Your task to perform on an android device: turn on javascript in the chrome app Image 0: 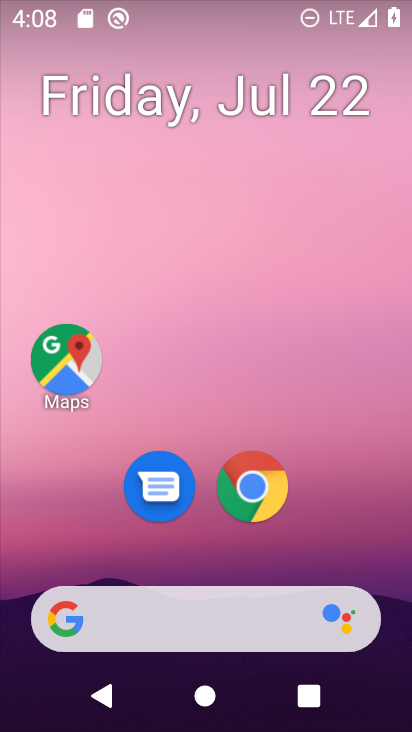
Step 0: click (247, 478)
Your task to perform on an android device: turn on javascript in the chrome app Image 1: 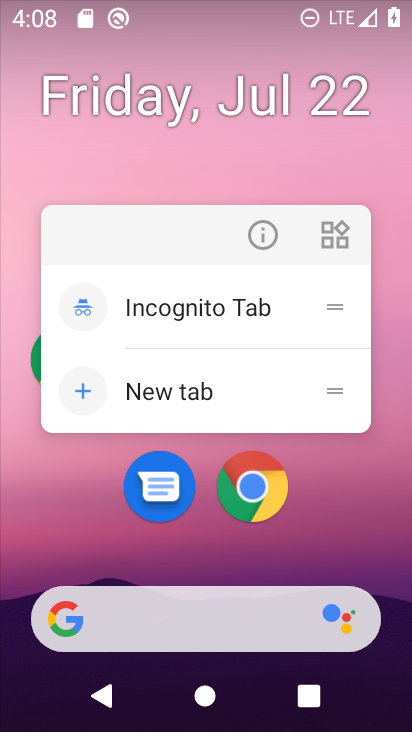
Step 1: click (249, 473)
Your task to perform on an android device: turn on javascript in the chrome app Image 2: 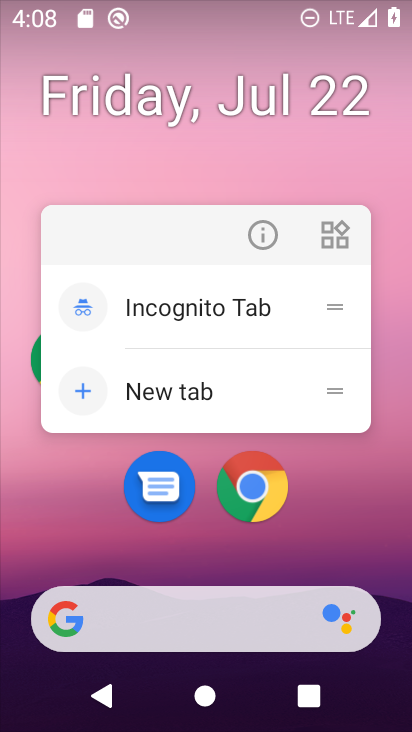
Step 2: click (257, 482)
Your task to perform on an android device: turn on javascript in the chrome app Image 3: 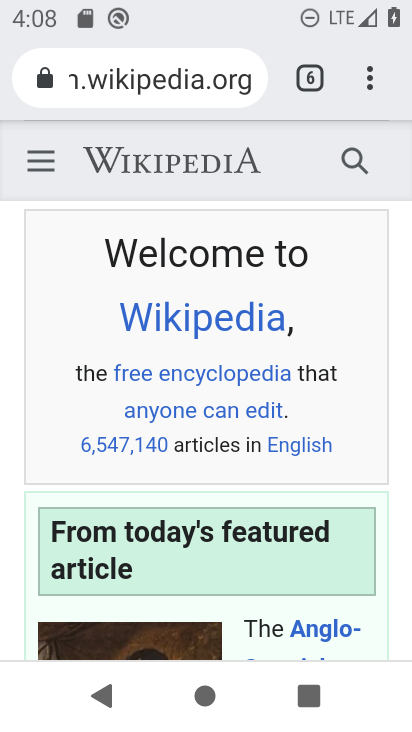
Step 3: drag from (380, 68) to (116, 559)
Your task to perform on an android device: turn on javascript in the chrome app Image 4: 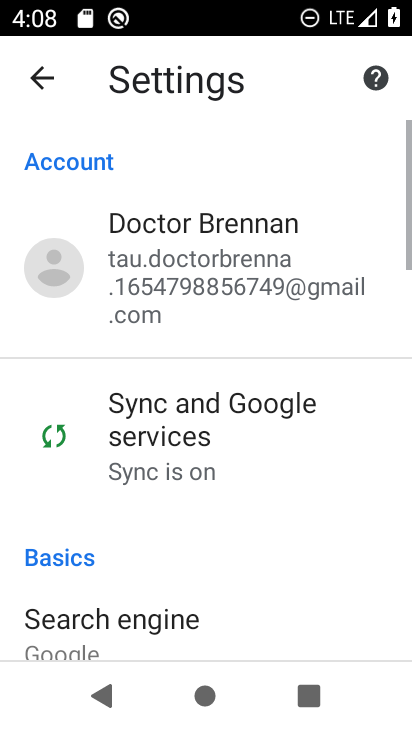
Step 4: drag from (106, 548) to (258, 16)
Your task to perform on an android device: turn on javascript in the chrome app Image 5: 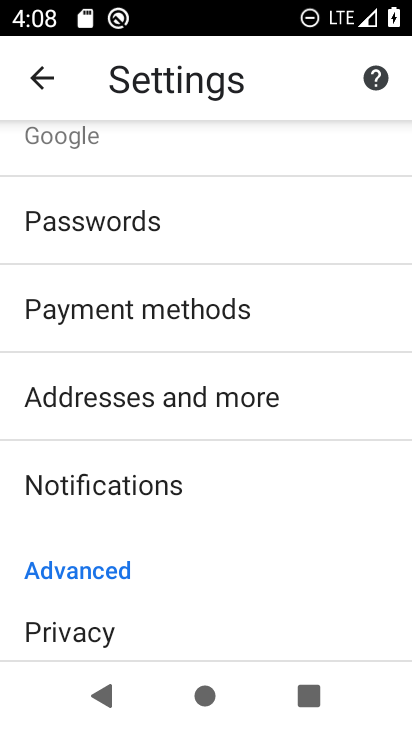
Step 5: drag from (125, 551) to (243, 85)
Your task to perform on an android device: turn on javascript in the chrome app Image 6: 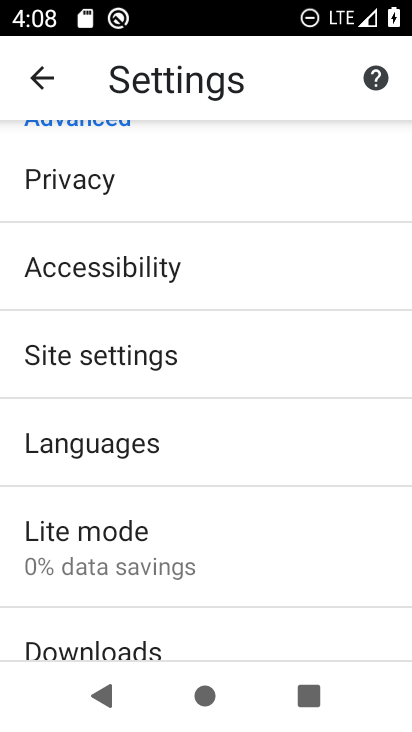
Step 6: click (83, 367)
Your task to perform on an android device: turn on javascript in the chrome app Image 7: 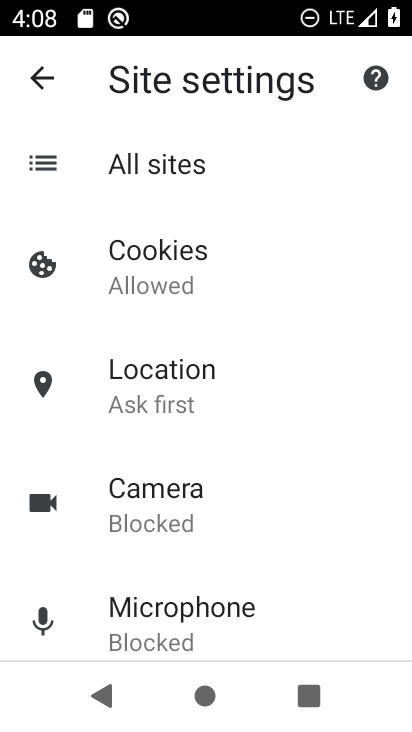
Step 7: drag from (207, 614) to (290, 108)
Your task to perform on an android device: turn on javascript in the chrome app Image 8: 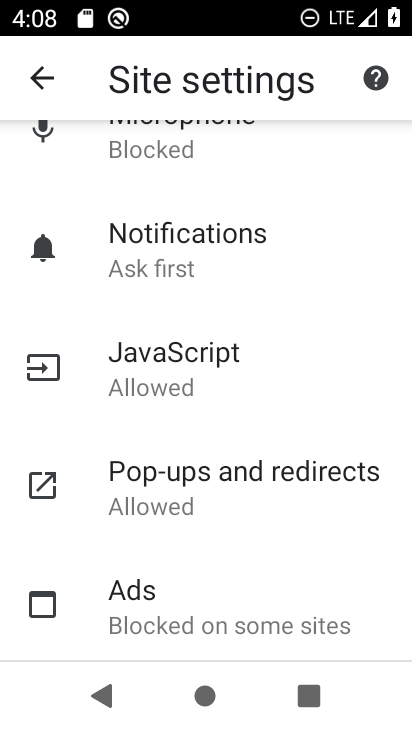
Step 8: click (167, 360)
Your task to perform on an android device: turn on javascript in the chrome app Image 9: 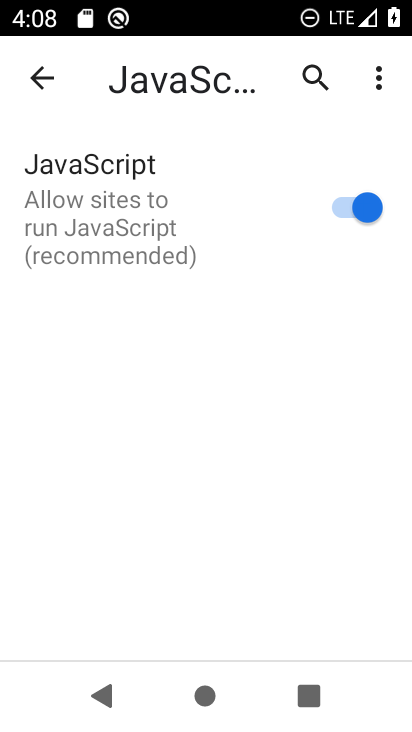
Step 9: task complete